Your task to perform on an android device: turn on notifications settings in the gmail app Image 0: 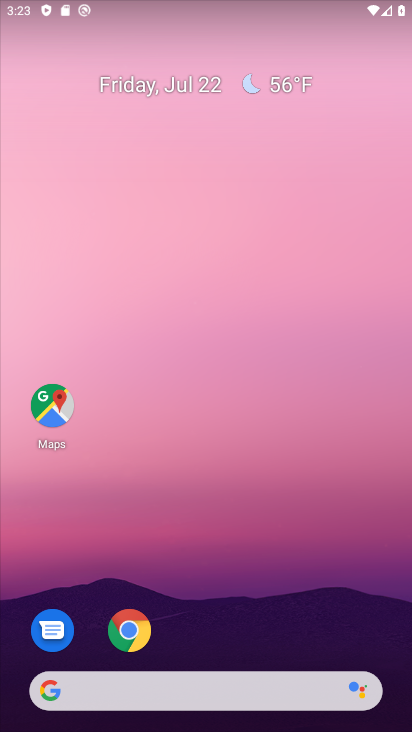
Step 0: drag from (304, 341) to (236, 104)
Your task to perform on an android device: turn on notifications settings in the gmail app Image 1: 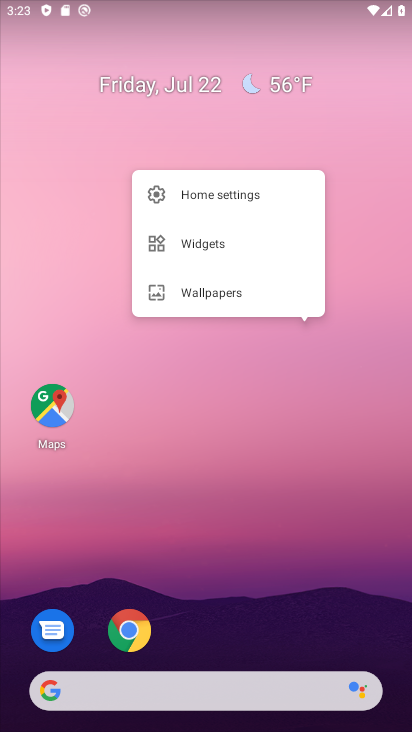
Step 1: drag from (275, 298) to (228, 130)
Your task to perform on an android device: turn on notifications settings in the gmail app Image 2: 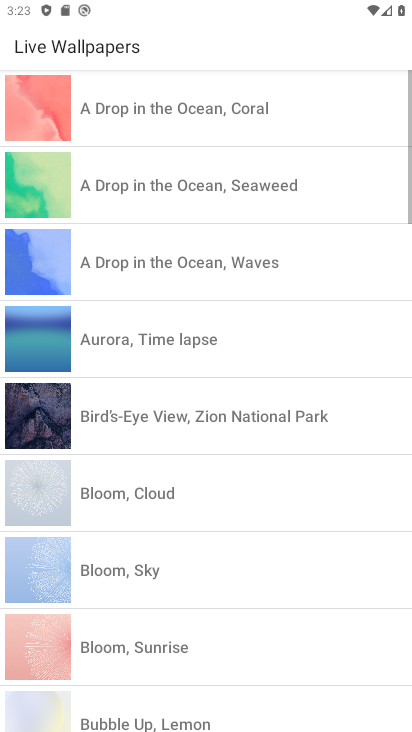
Step 2: press home button
Your task to perform on an android device: turn on notifications settings in the gmail app Image 3: 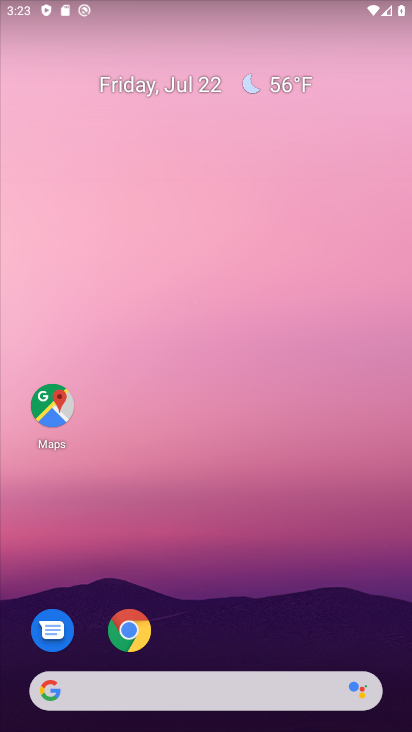
Step 3: drag from (362, 633) to (220, 134)
Your task to perform on an android device: turn on notifications settings in the gmail app Image 4: 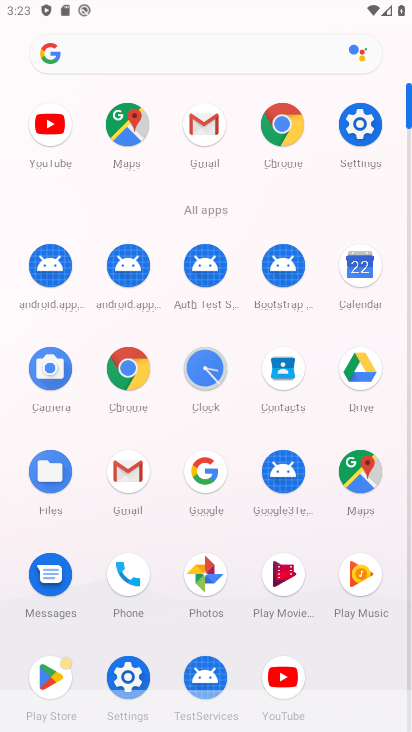
Step 4: click (210, 134)
Your task to perform on an android device: turn on notifications settings in the gmail app Image 5: 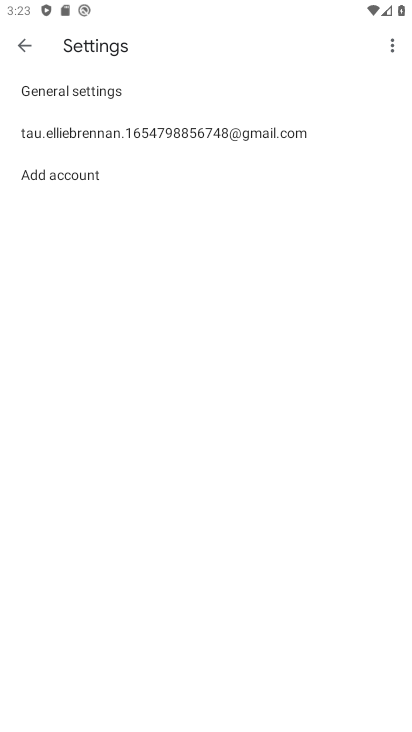
Step 5: click (210, 134)
Your task to perform on an android device: turn on notifications settings in the gmail app Image 6: 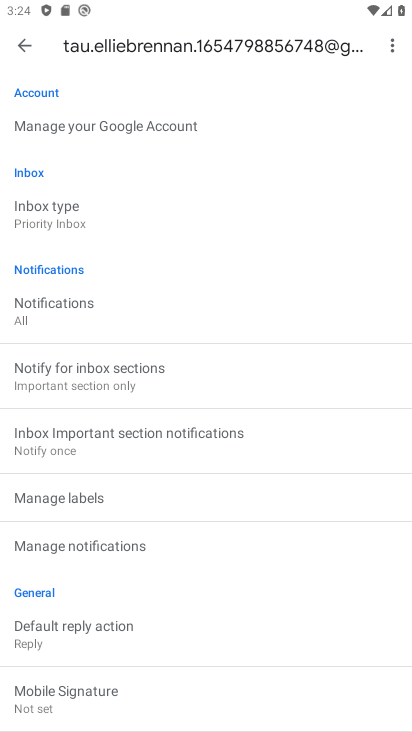
Step 6: click (139, 550)
Your task to perform on an android device: turn on notifications settings in the gmail app Image 7: 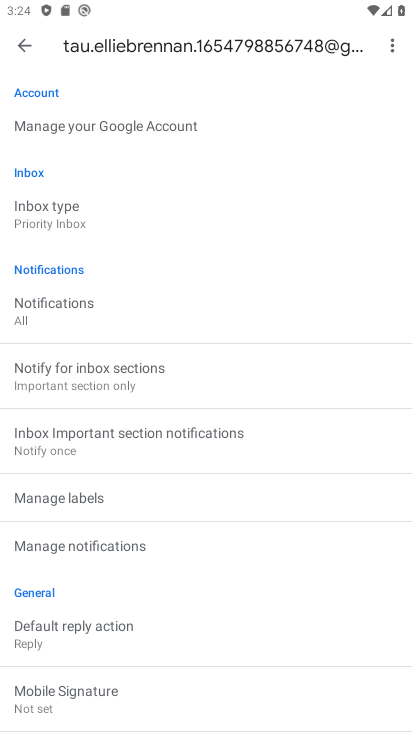
Step 7: click (126, 550)
Your task to perform on an android device: turn on notifications settings in the gmail app Image 8: 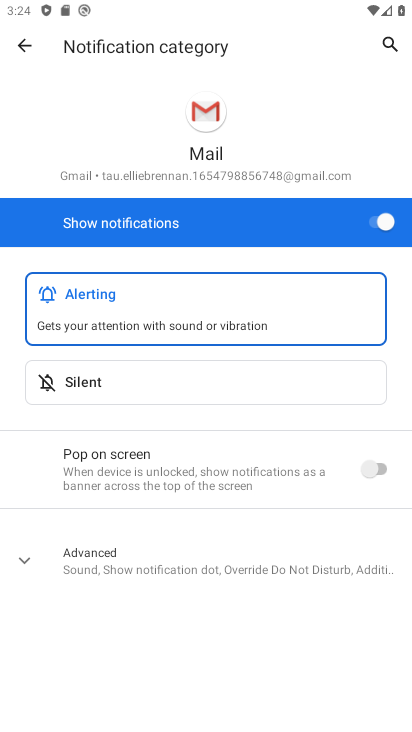
Step 8: task complete